Your task to perform on an android device: Clear the cart on amazon.com. Add "bose soundsport free" to the cart on amazon.com, then select checkout. Image 0: 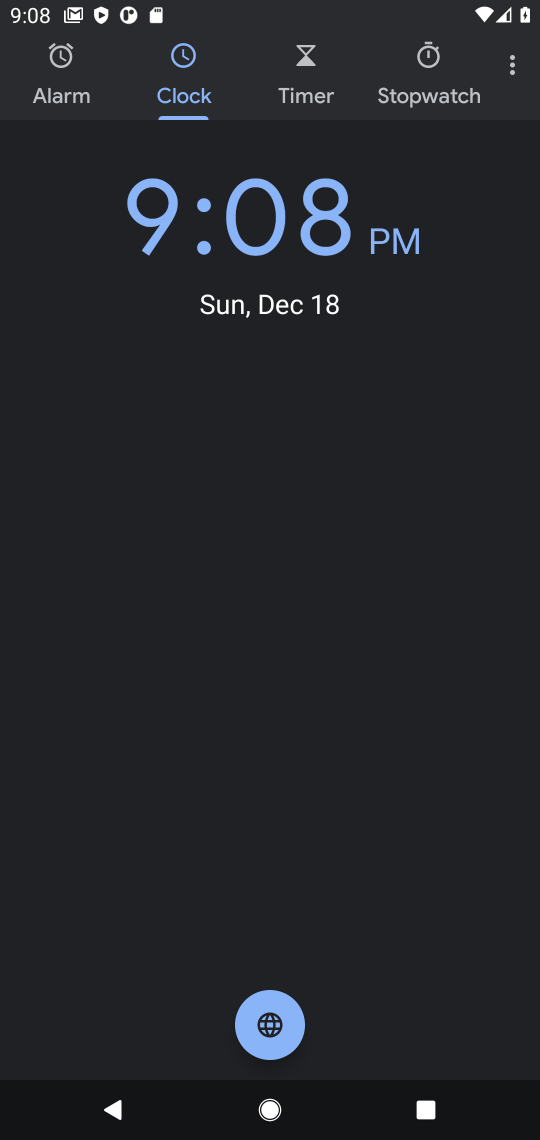
Step 0: press home button
Your task to perform on an android device: Clear the cart on amazon.com. Add "bose soundsport free" to the cart on amazon.com, then select checkout. Image 1: 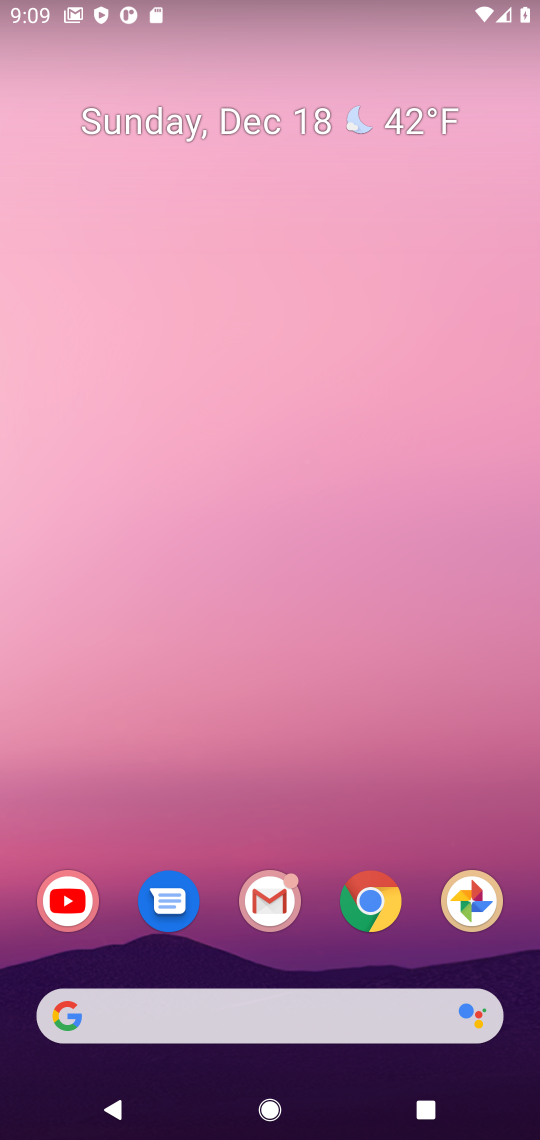
Step 1: click (369, 898)
Your task to perform on an android device: Clear the cart on amazon.com. Add "bose soundsport free" to the cart on amazon.com, then select checkout. Image 2: 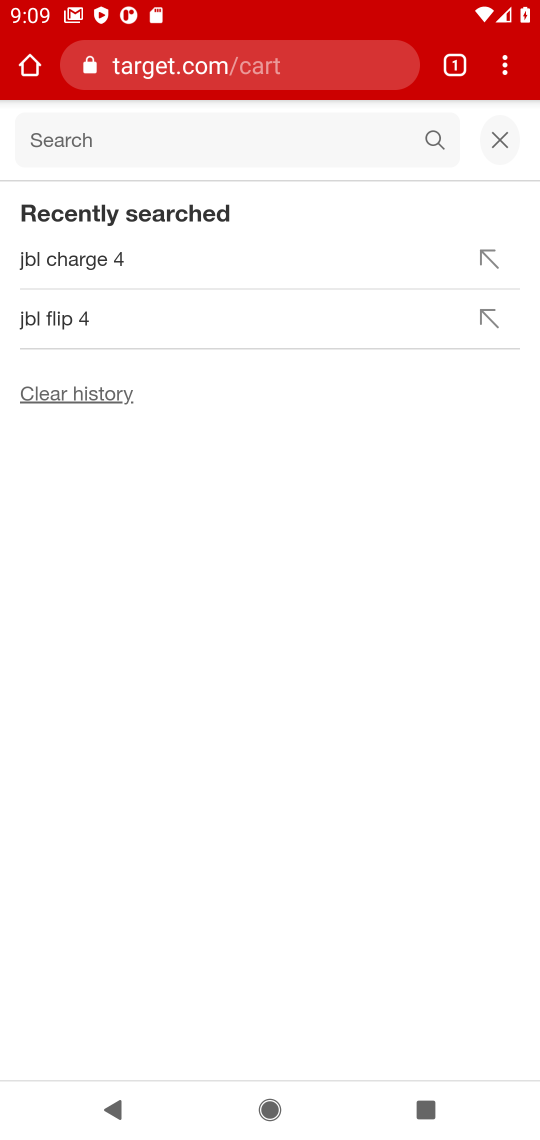
Step 2: click (195, 52)
Your task to perform on an android device: Clear the cart on amazon.com. Add "bose soundsport free" to the cart on amazon.com, then select checkout. Image 3: 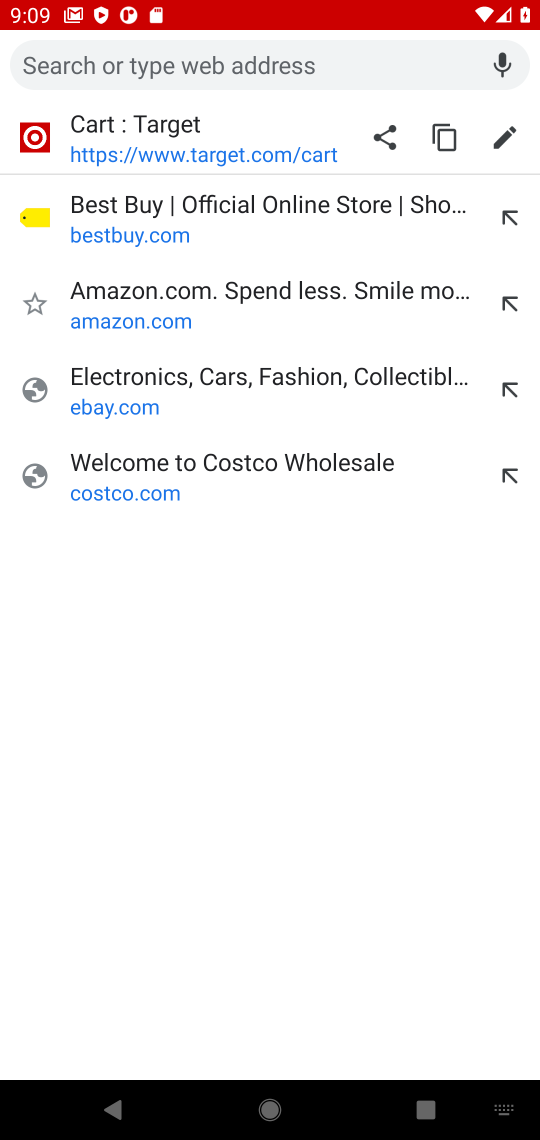
Step 3: click (161, 302)
Your task to perform on an android device: Clear the cart on amazon.com. Add "bose soundsport free" to the cart on amazon.com, then select checkout. Image 4: 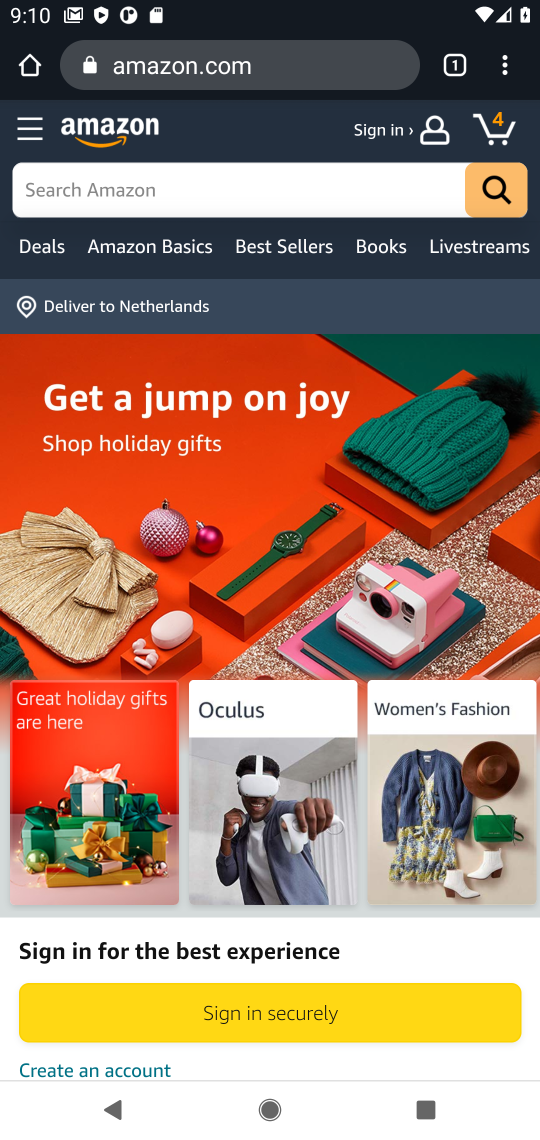
Step 4: click (152, 208)
Your task to perform on an android device: Clear the cart on amazon.com. Add "bose soundsport free" to the cart on amazon.com, then select checkout. Image 5: 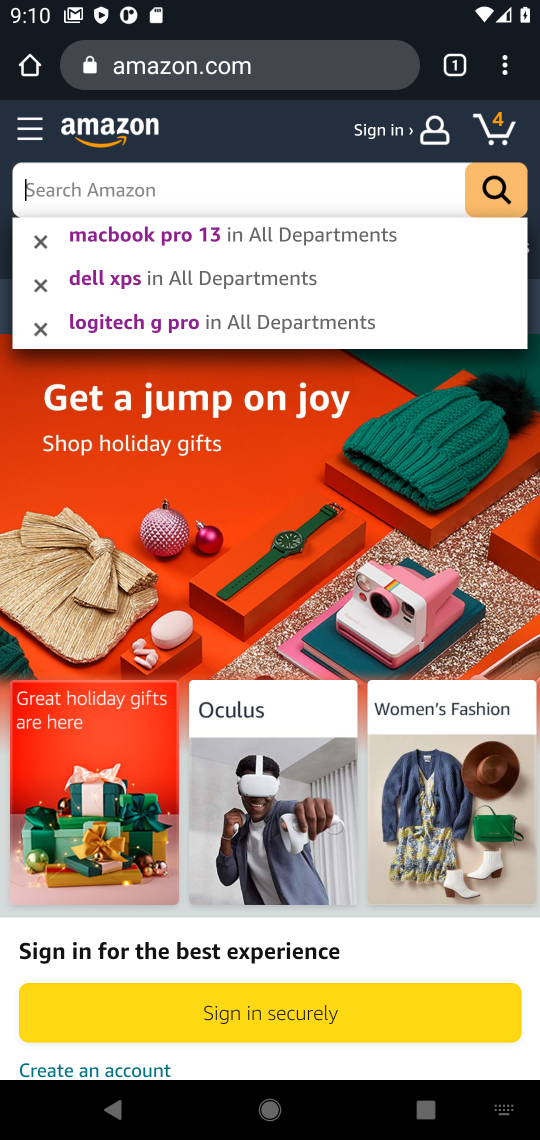
Step 5: type "bose soundsports"
Your task to perform on an android device: Clear the cart on amazon.com. Add "bose soundsport free" to the cart on amazon.com, then select checkout. Image 6: 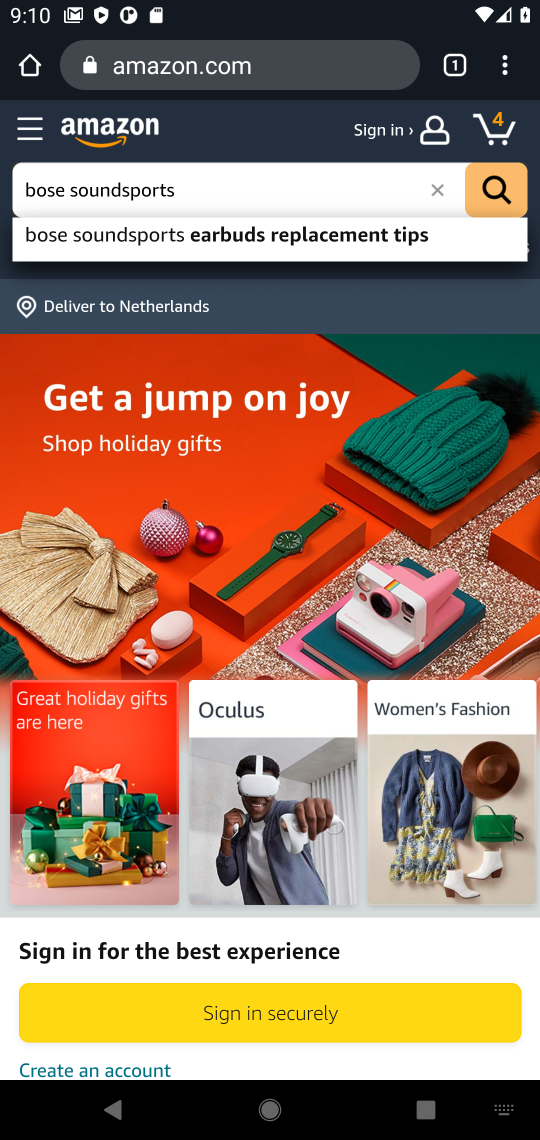
Step 6: click (486, 196)
Your task to perform on an android device: Clear the cart on amazon.com. Add "bose soundsport free" to the cart on amazon.com, then select checkout. Image 7: 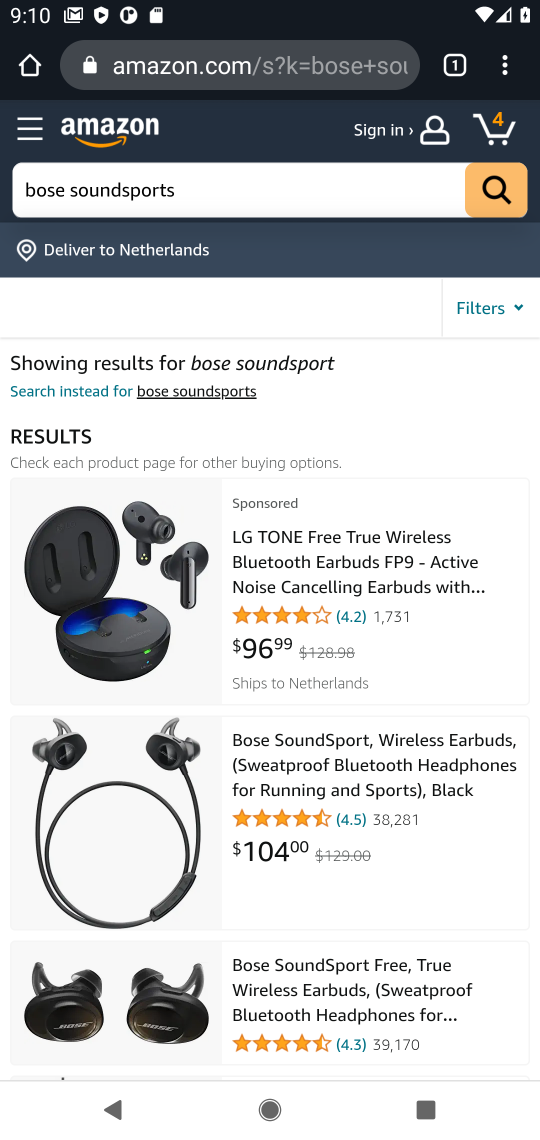
Step 7: click (325, 562)
Your task to perform on an android device: Clear the cart on amazon.com. Add "bose soundsport free" to the cart on amazon.com, then select checkout. Image 8: 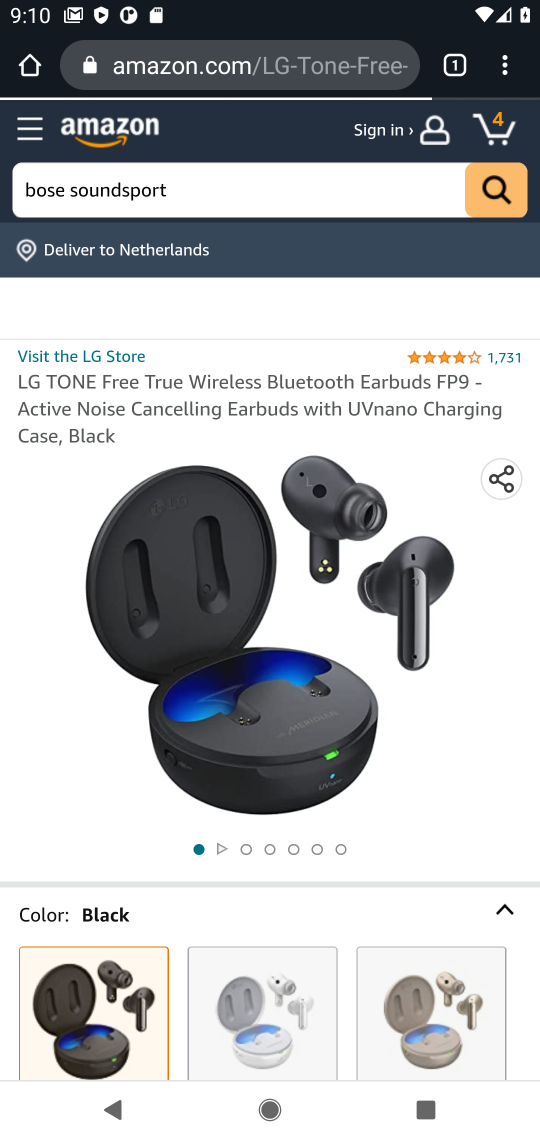
Step 8: task complete